Your task to perform on an android device: Open eBay Image 0: 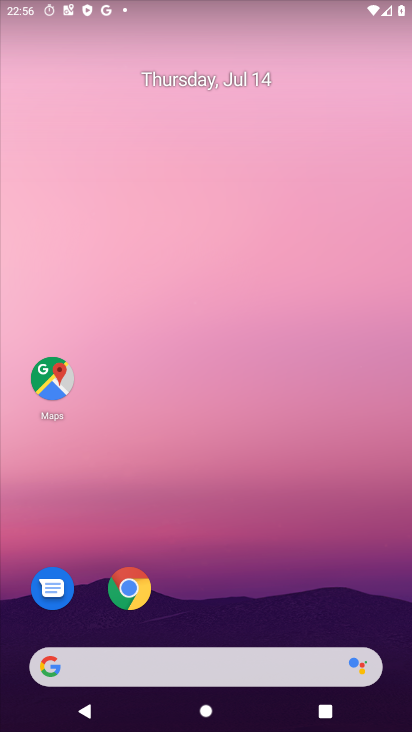
Step 0: drag from (272, 624) to (269, 169)
Your task to perform on an android device: Open eBay Image 1: 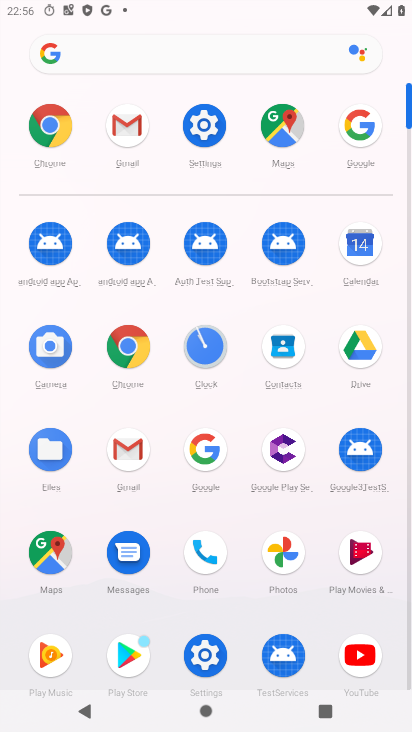
Step 1: click (212, 446)
Your task to perform on an android device: Open eBay Image 2: 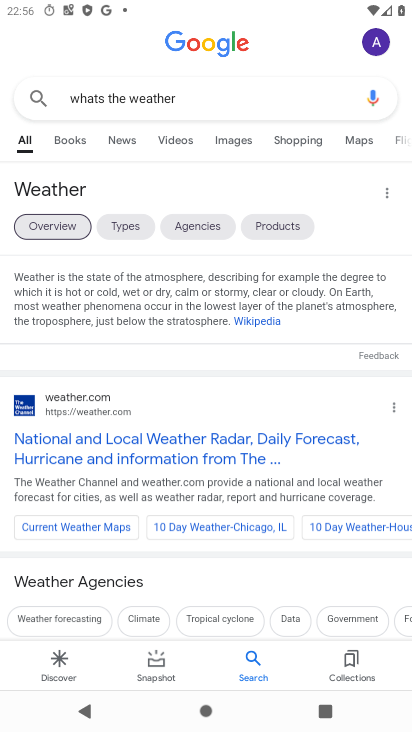
Step 2: click (225, 101)
Your task to perform on an android device: Open eBay Image 3: 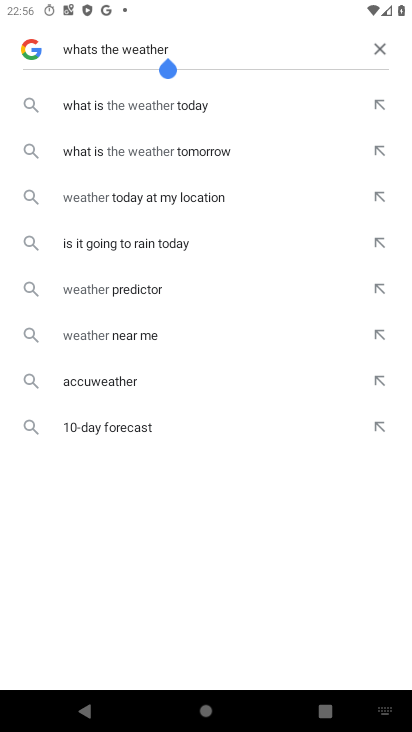
Step 3: click (374, 50)
Your task to perform on an android device: Open eBay Image 4: 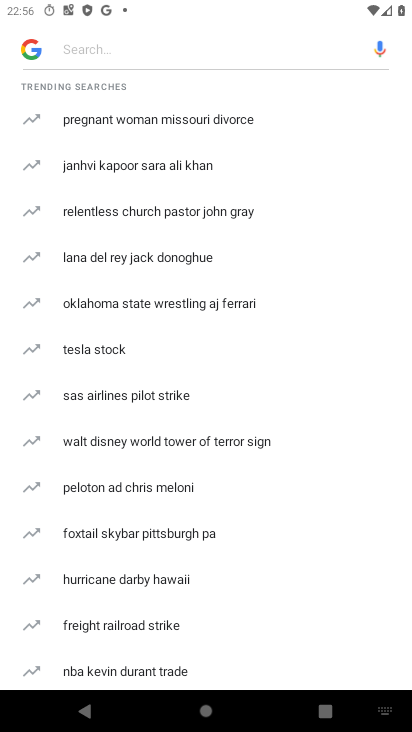
Step 4: type "ebay"
Your task to perform on an android device: Open eBay Image 5: 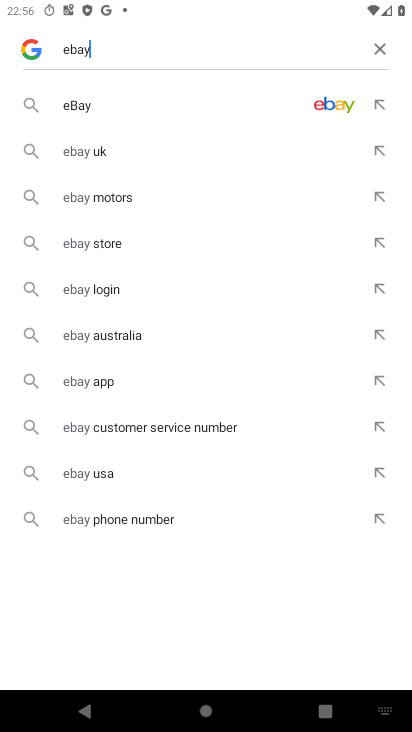
Step 5: click (193, 111)
Your task to perform on an android device: Open eBay Image 6: 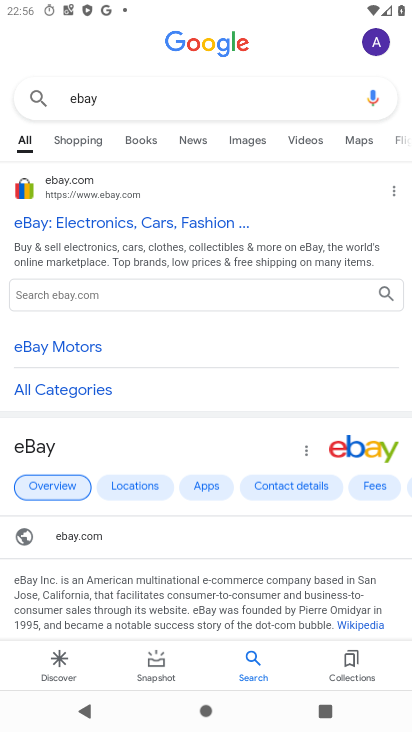
Step 6: click (172, 228)
Your task to perform on an android device: Open eBay Image 7: 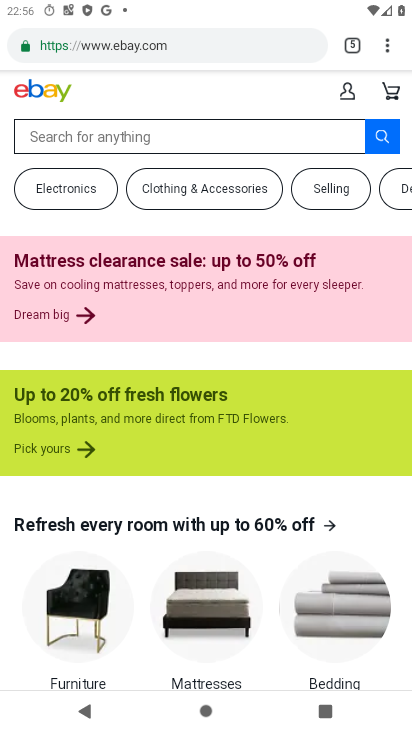
Step 7: task complete